Your task to perform on an android device: check data usage Image 0: 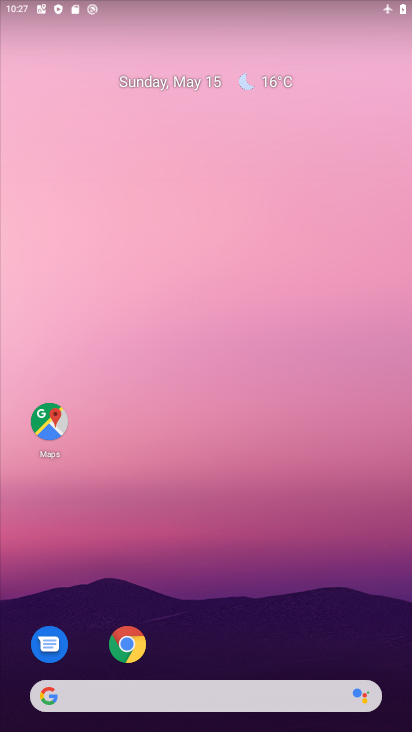
Step 0: drag from (253, 661) to (239, 510)
Your task to perform on an android device: check data usage Image 1: 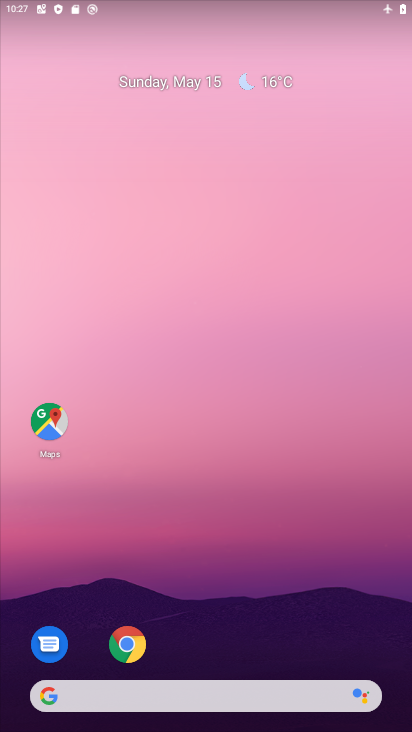
Step 1: drag from (312, 9) to (360, 678)
Your task to perform on an android device: check data usage Image 2: 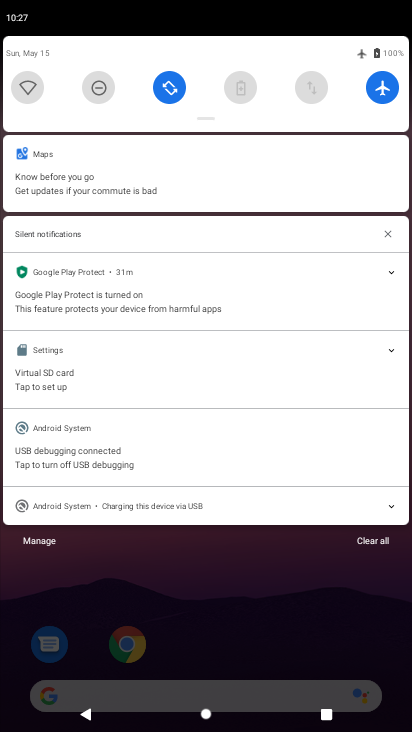
Step 2: click (306, 83)
Your task to perform on an android device: check data usage Image 3: 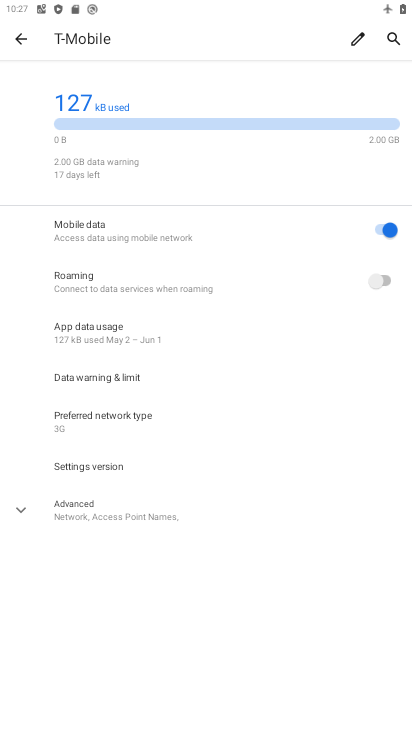
Step 3: task complete